Your task to perform on an android device: open app "Google Calendar" (install if not already installed) Image 0: 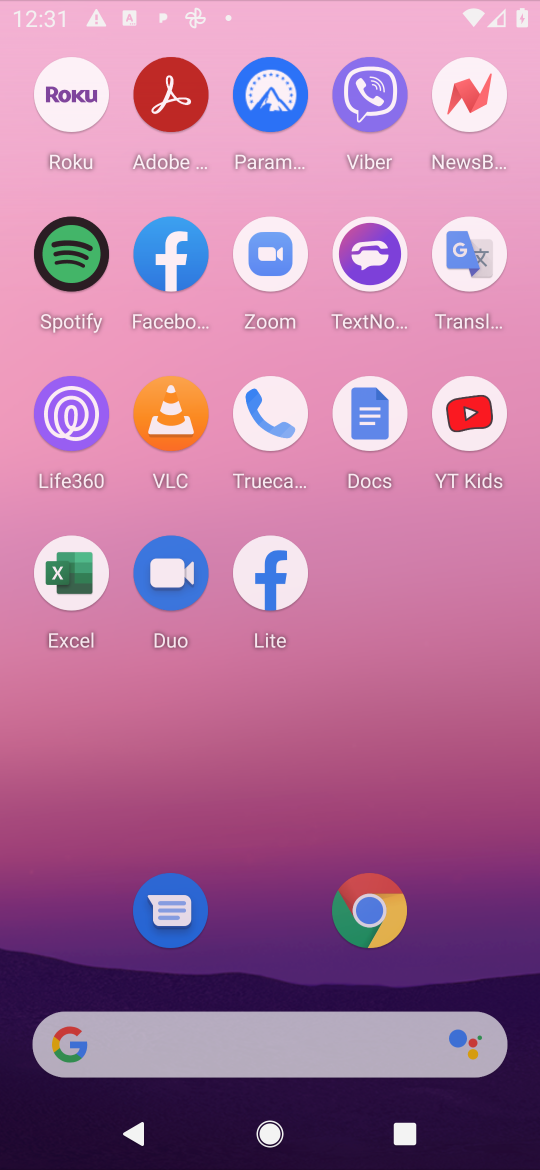
Step 0: press home button
Your task to perform on an android device: open app "Google Calendar" (install if not already installed) Image 1: 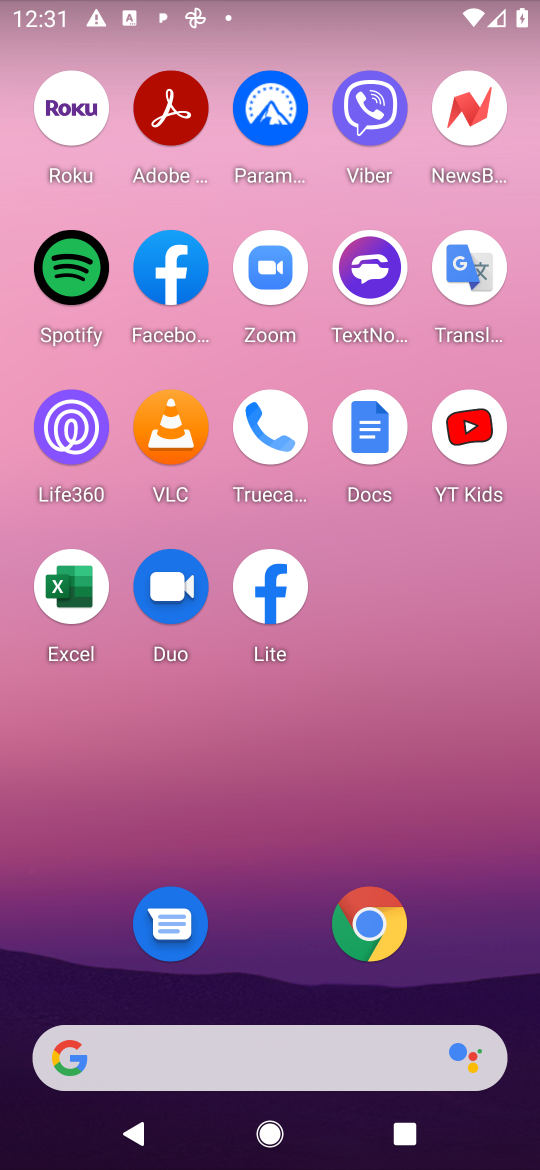
Step 1: press back button
Your task to perform on an android device: open app "Google Calendar" (install if not already installed) Image 2: 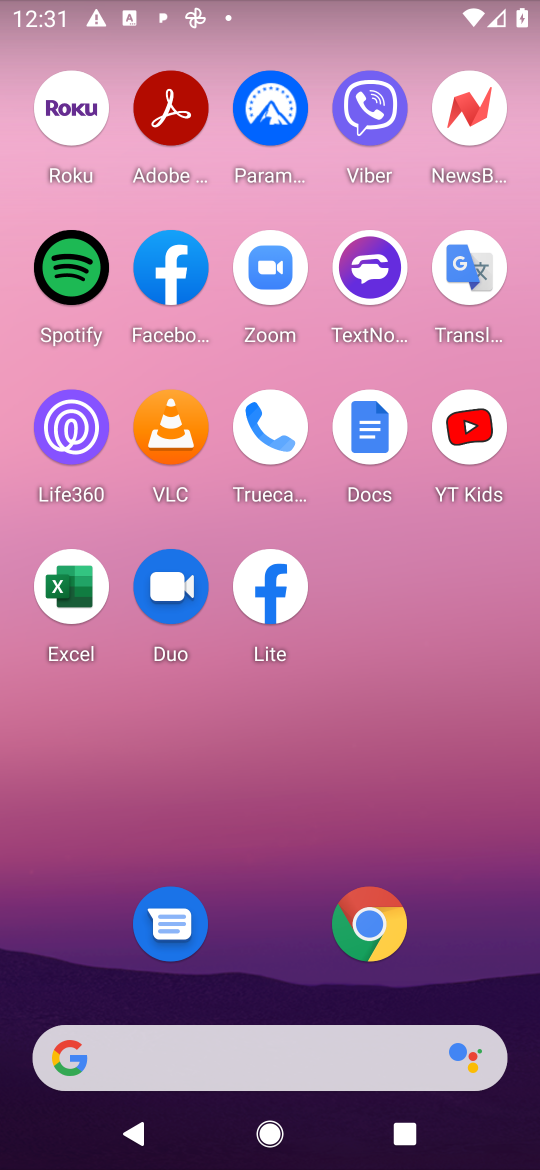
Step 2: drag from (459, 854) to (412, 104)
Your task to perform on an android device: open app "Google Calendar" (install if not already installed) Image 3: 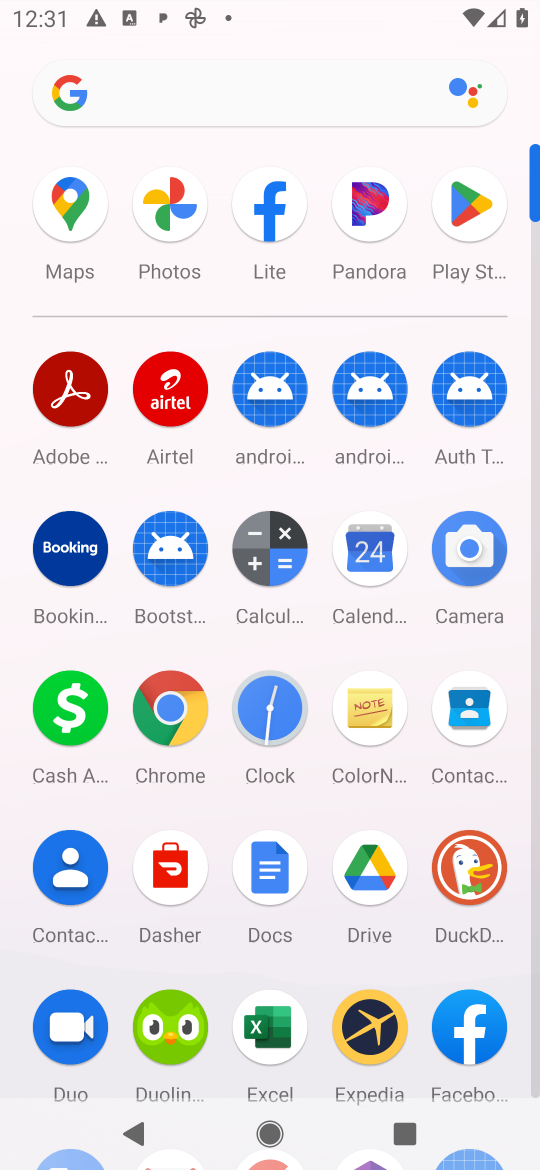
Step 3: click (460, 200)
Your task to perform on an android device: open app "Google Calendar" (install if not already installed) Image 4: 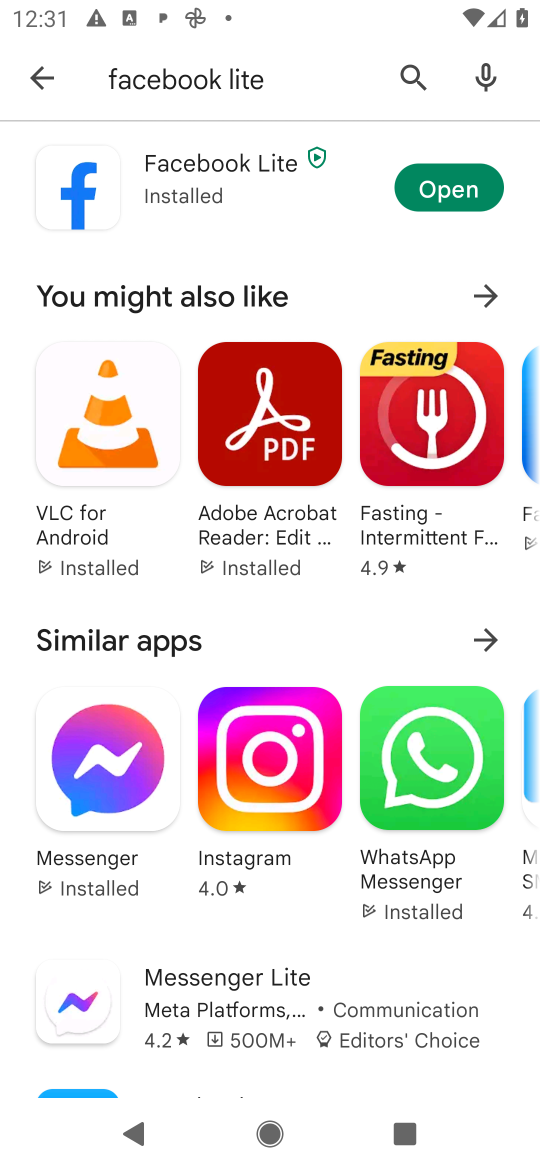
Step 4: press back button
Your task to perform on an android device: open app "Google Calendar" (install if not already installed) Image 5: 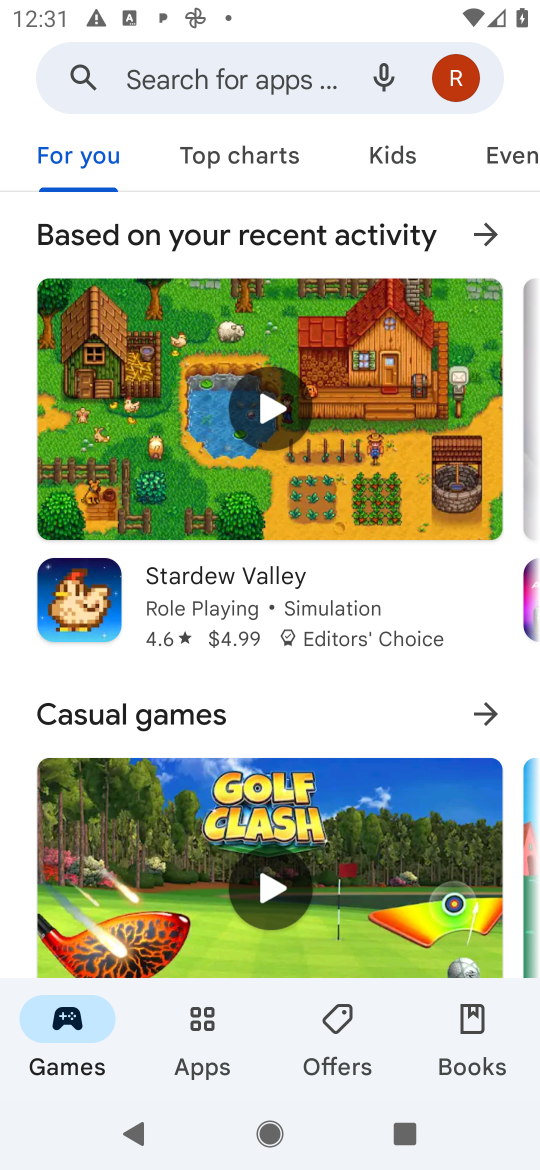
Step 5: click (276, 71)
Your task to perform on an android device: open app "Google Calendar" (install if not already installed) Image 6: 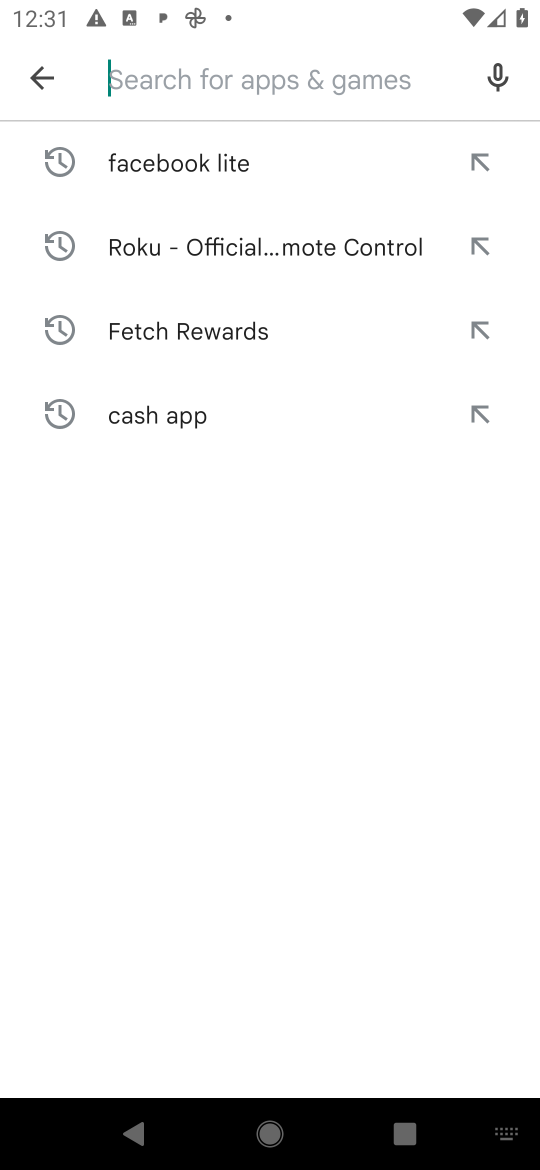
Step 6: type "Google Calendar"
Your task to perform on an android device: open app "Google Calendar" (install if not already installed) Image 7: 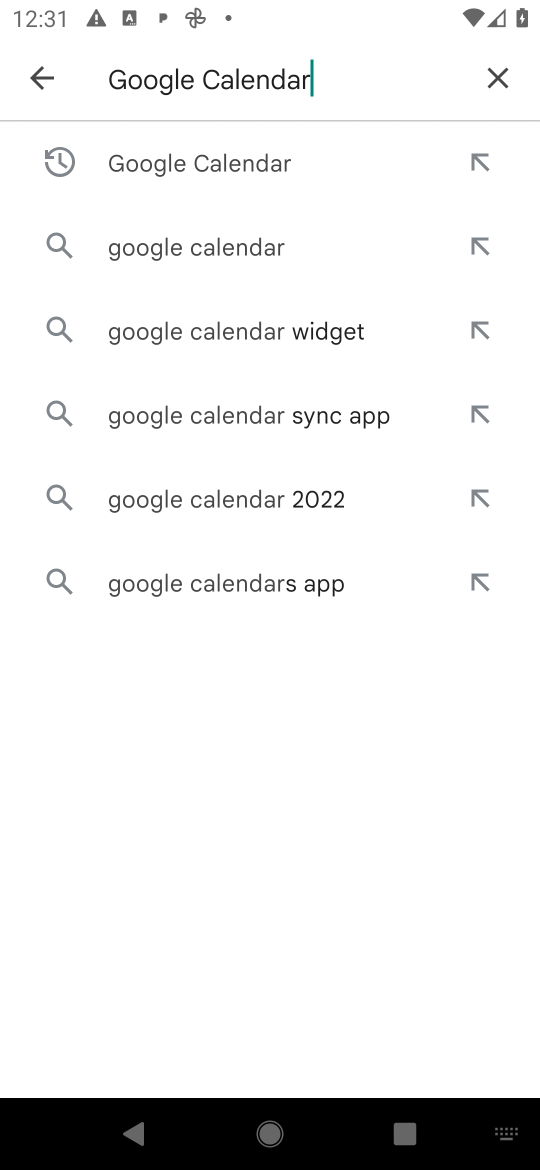
Step 7: press enter
Your task to perform on an android device: open app "Google Calendar" (install if not already installed) Image 8: 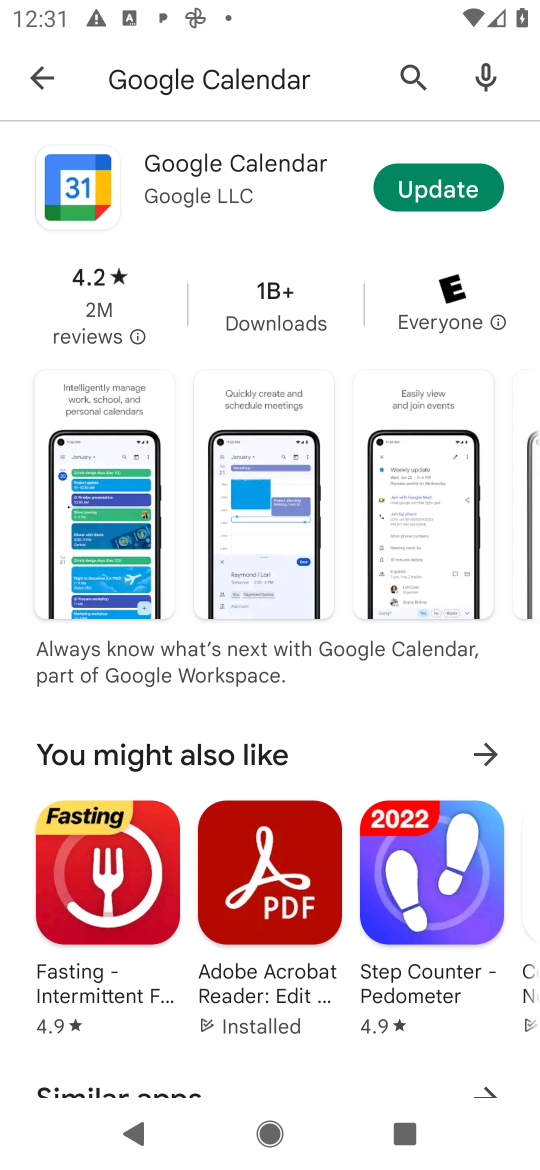
Step 8: click (450, 192)
Your task to perform on an android device: open app "Google Calendar" (install if not already installed) Image 9: 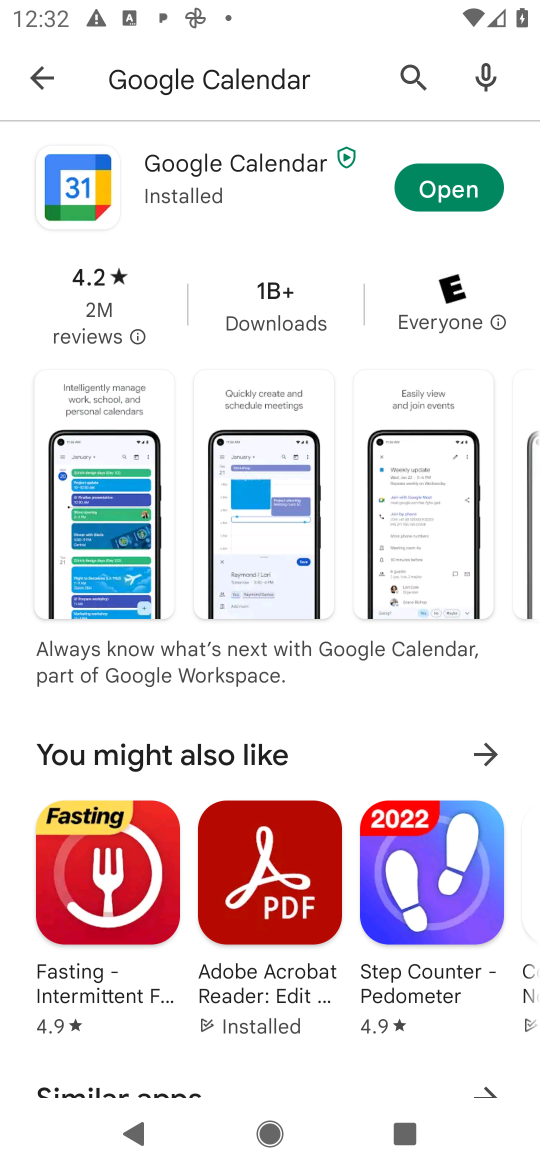
Step 9: click (470, 177)
Your task to perform on an android device: open app "Google Calendar" (install if not already installed) Image 10: 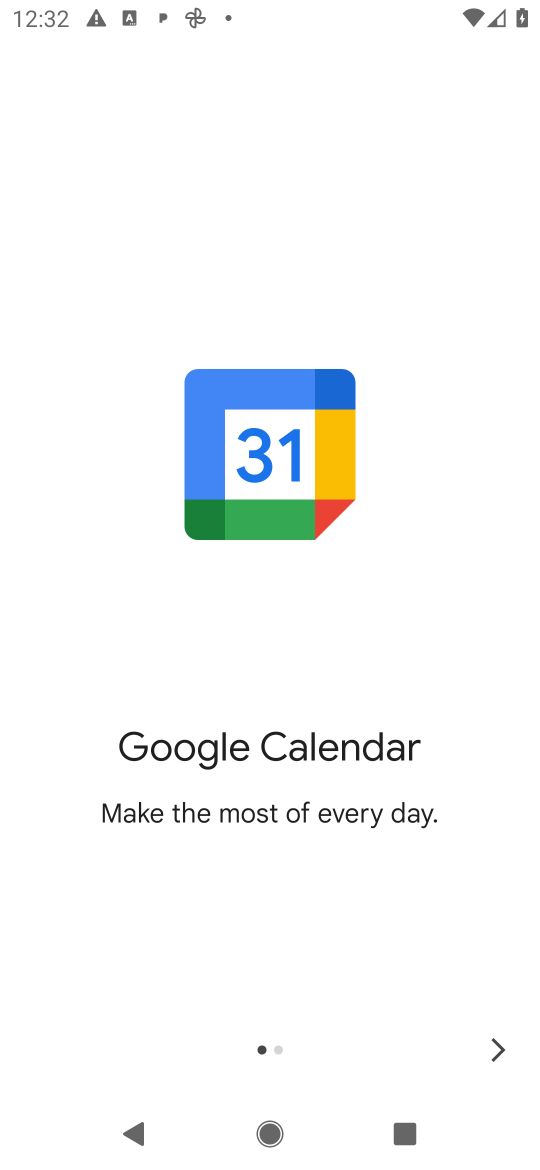
Step 10: click (497, 1032)
Your task to perform on an android device: open app "Google Calendar" (install if not already installed) Image 11: 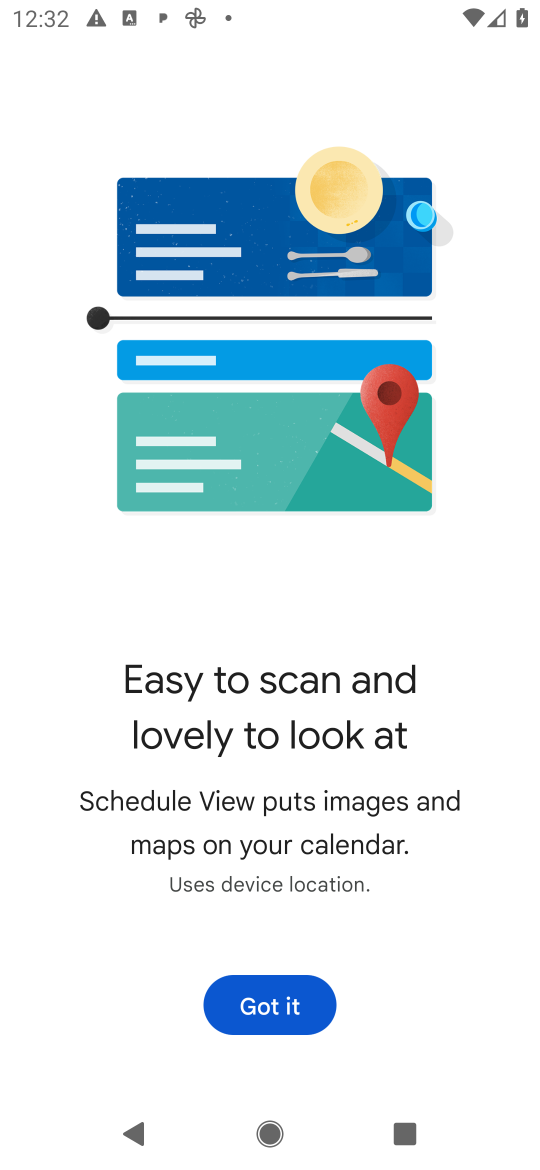
Step 11: click (295, 1004)
Your task to perform on an android device: open app "Google Calendar" (install if not already installed) Image 12: 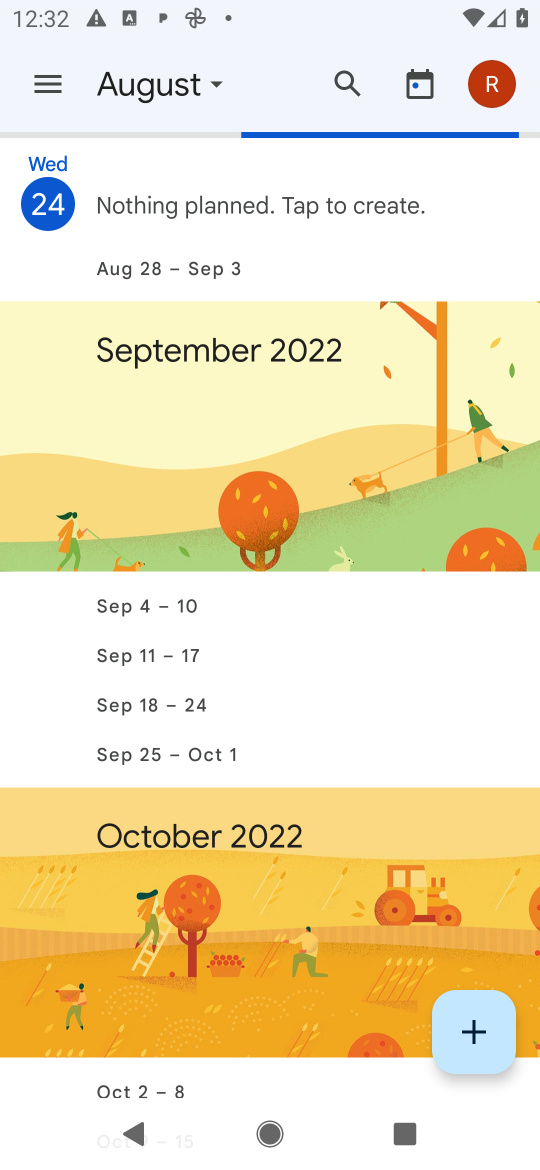
Step 12: task complete